Your task to perform on an android device: Open the stopwatch Image 0: 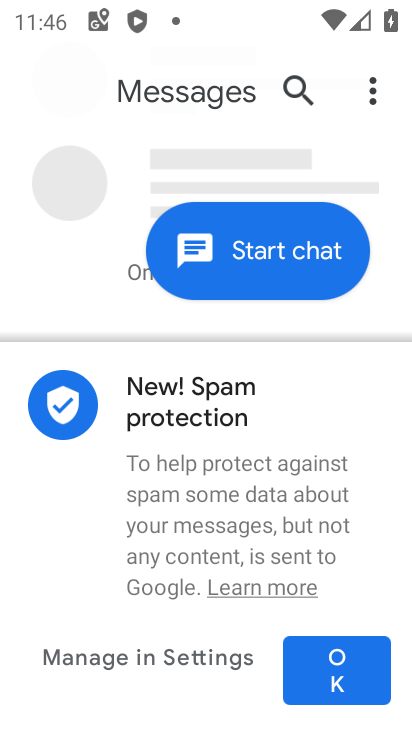
Step 0: press back button
Your task to perform on an android device: Open the stopwatch Image 1: 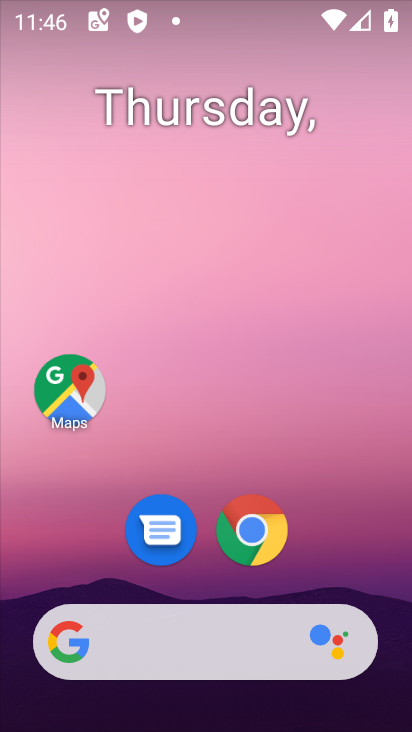
Step 1: drag from (331, 558) to (271, 171)
Your task to perform on an android device: Open the stopwatch Image 2: 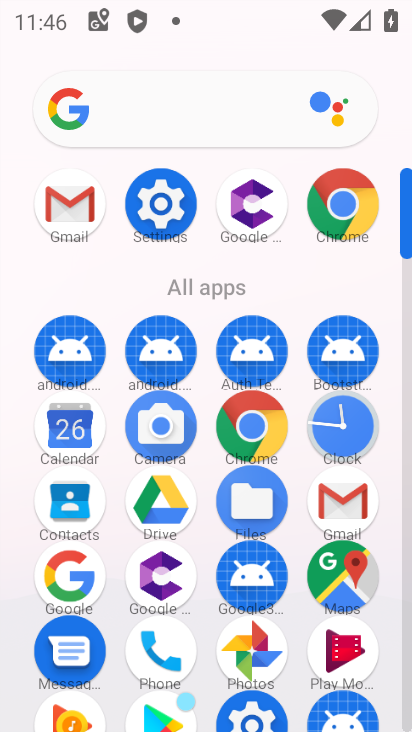
Step 2: drag from (300, 619) to (336, 403)
Your task to perform on an android device: Open the stopwatch Image 3: 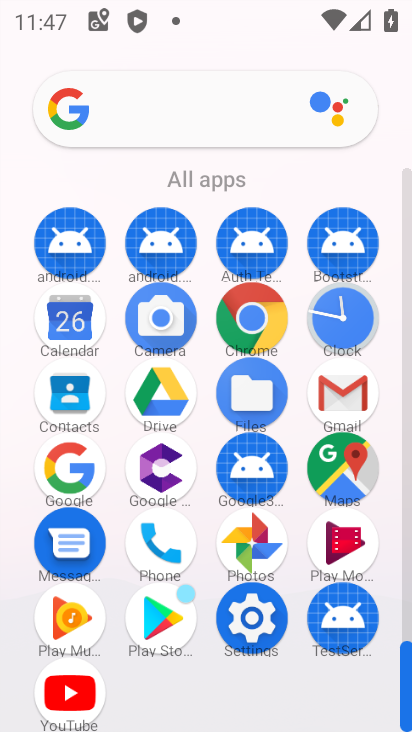
Step 3: click (342, 319)
Your task to perform on an android device: Open the stopwatch Image 4: 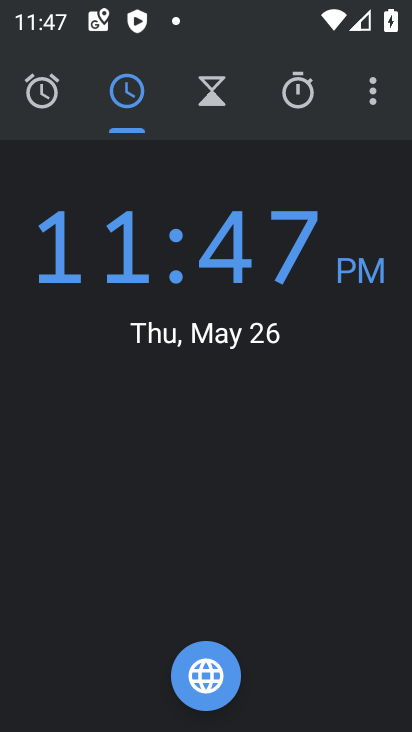
Step 4: click (301, 99)
Your task to perform on an android device: Open the stopwatch Image 5: 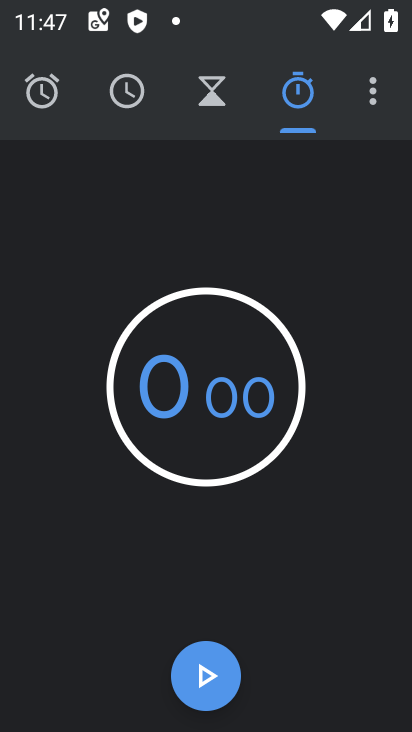
Step 5: task complete